Your task to perform on an android device: Open Yahoo.com Image 0: 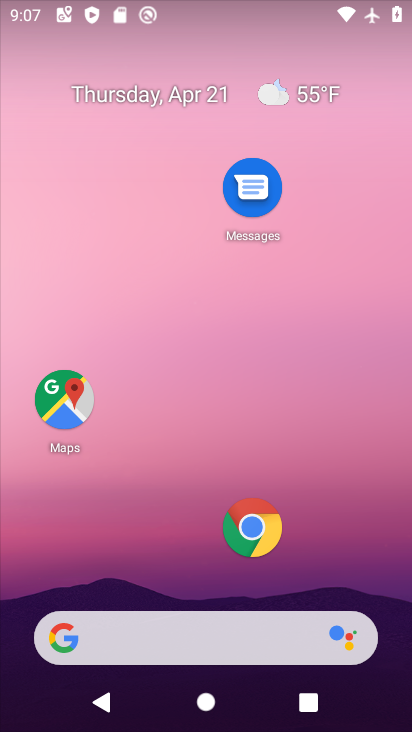
Step 0: press home button
Your task to perform on an android device: Open Yahoo.com Image 1: 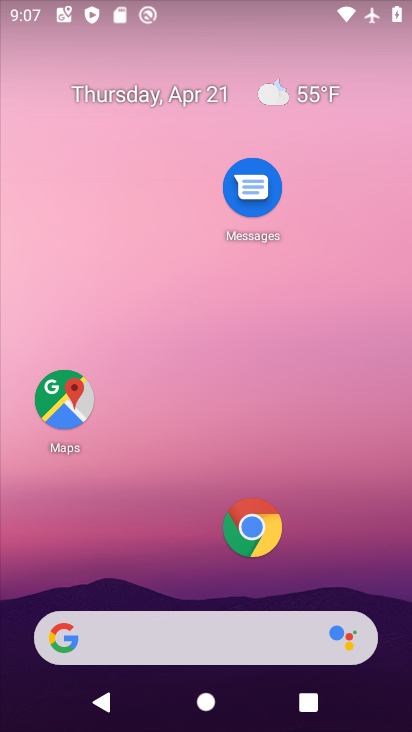
Step 1: drag from (152, 645) to (249, 35)
Your task to perform on an android device: Open Yahoo.com Image 2: 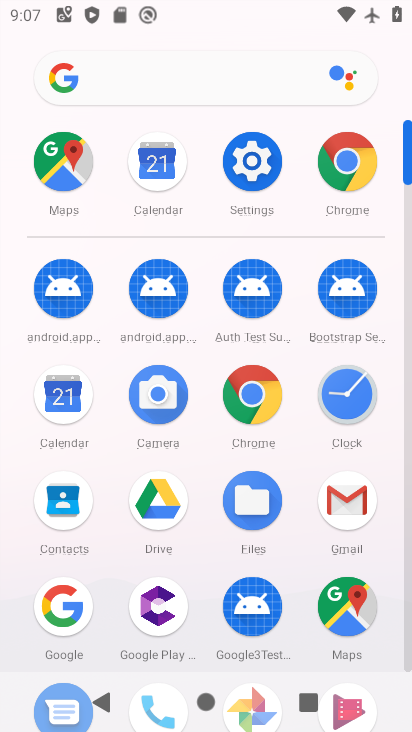
Step 2: click (357, 175)
Your task to perform on an android device: Open Yahoo.com Image 3: 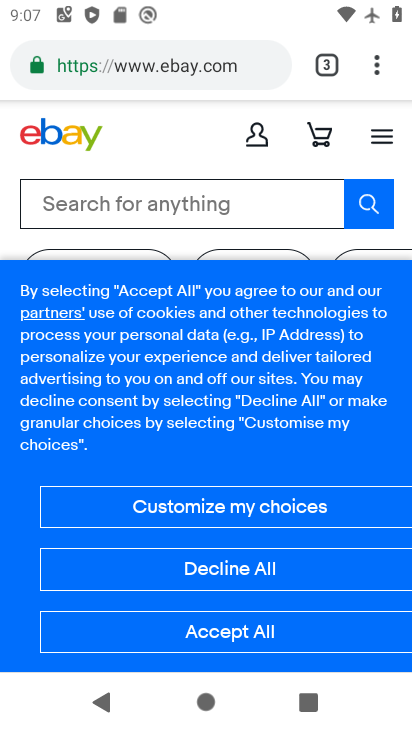
Step 3: click (371, 77)
Your task to perform on an android device: Open Yahoo.com Image 4: 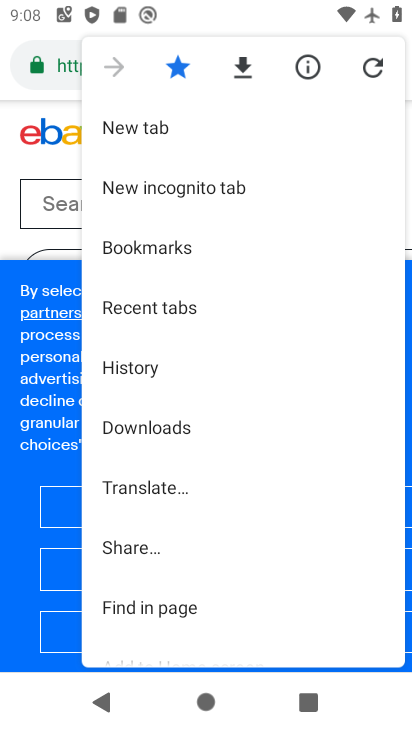
Step 4: click (158, 128)
Your task to perform on an android device: Open Yahoo.com Image 5: 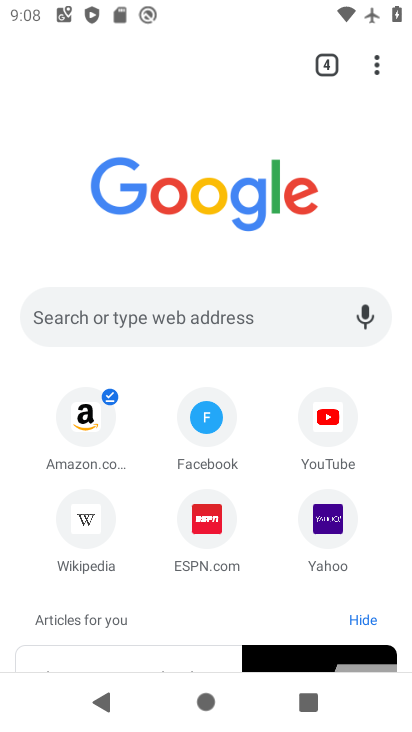
Step 5: click (323, 523)
Your task to perform on an android device: Open Yahoo.com Image 6: 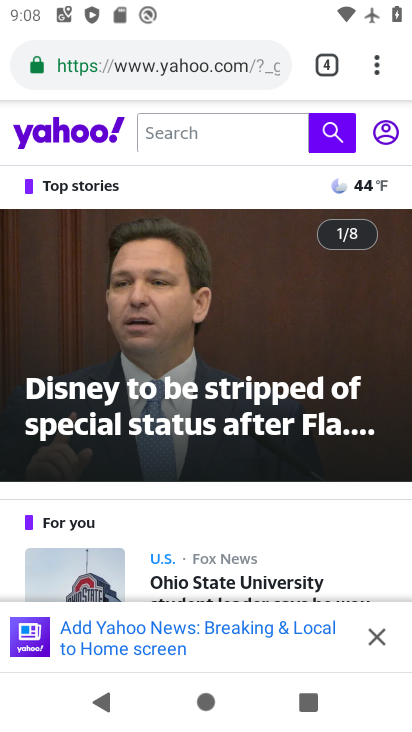
Step 6: task complete